Your task to perform on an android device: Open Maps and search for coffee Image 0: 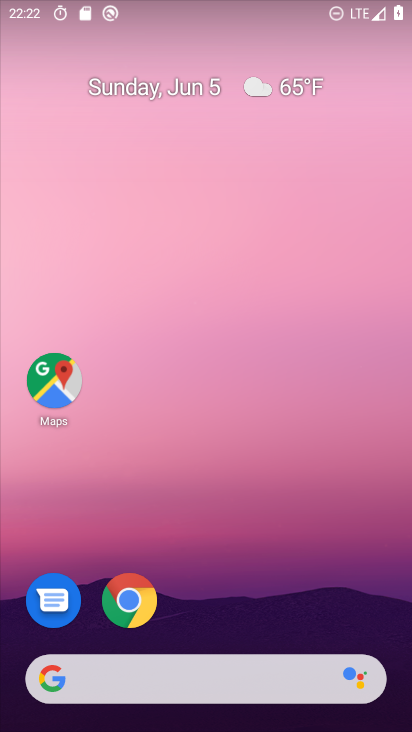
Step 0: click (62, 384)
Your task to perform on an android device: Open Maps and search for coffee Image 1: 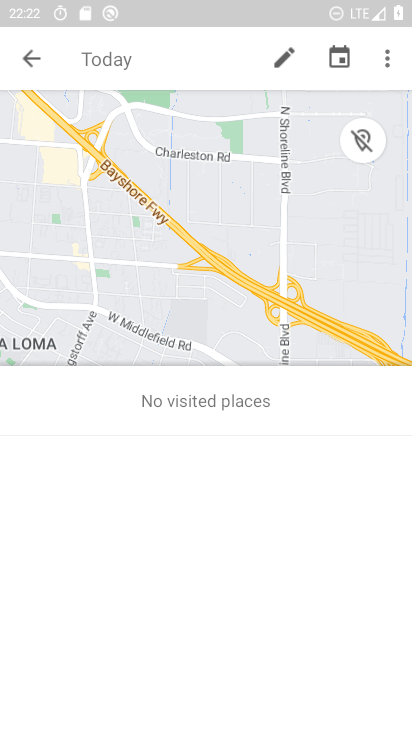
Step 1: click (33, 57)
Your task to perform on an android device: Open Maps and search for coffee Image 2: 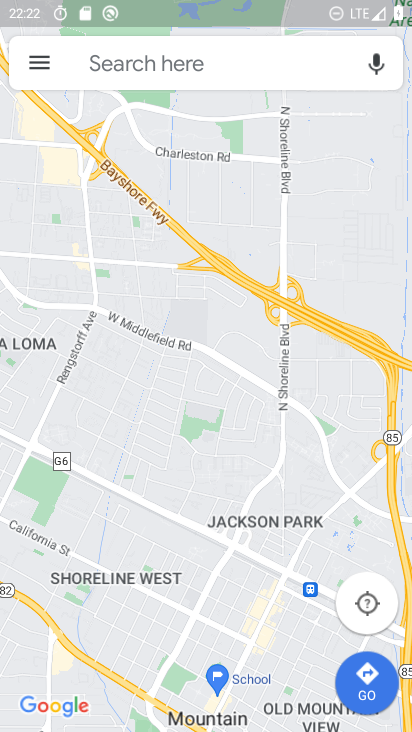
Step 2: click (184, 58)
Your task to perform on an android device: Open Maps and search for coffee Image 3: 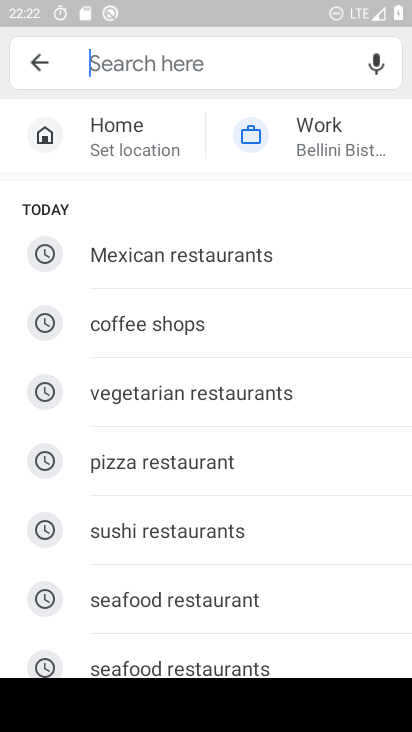
Step 3: type "coffee"
Your task to perform on an android device: Open Maps and search for coffee Image 4: 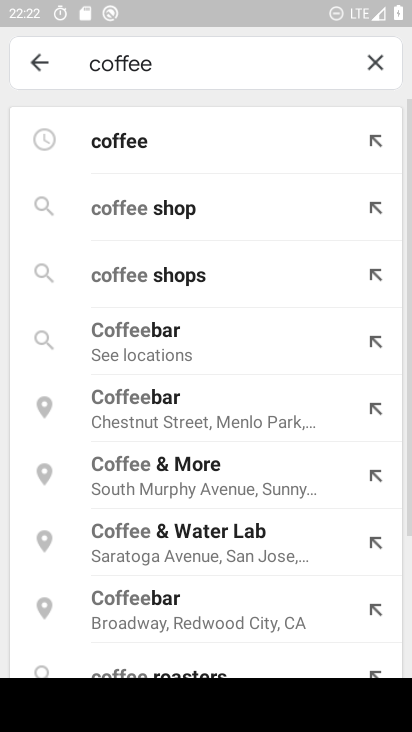
Step 4: click (125, 135)
Your task to perform on an android device: Open Maps and search for coffee Image 5: 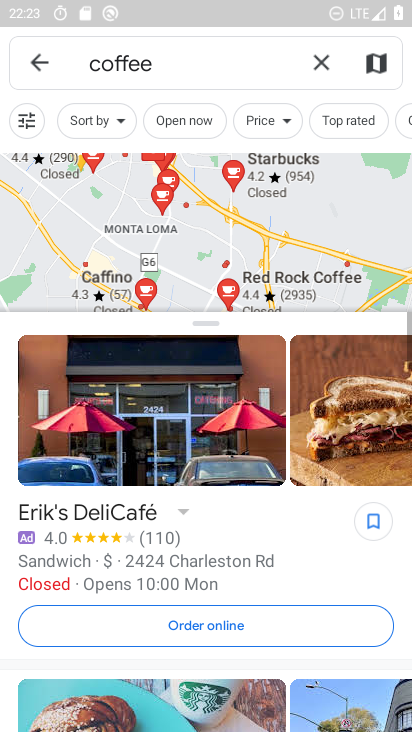
Step 5: task complete